Your task to perform on an android device: turn off sleep mode Image 0: 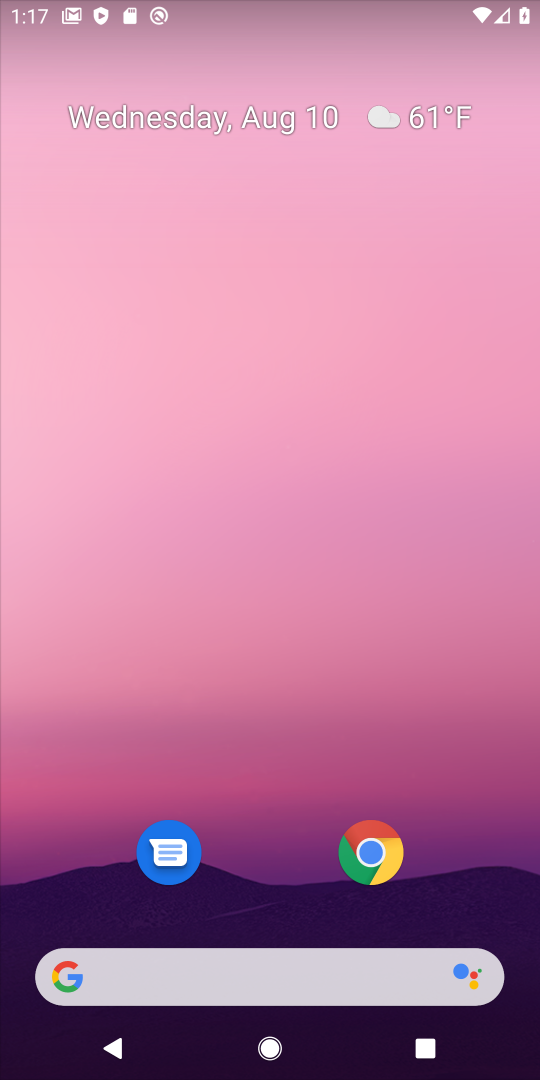
Step 0: drag from (280, 882) to (244, 22)
Your task to perform on an android device: turn off sleep mode Image 1: 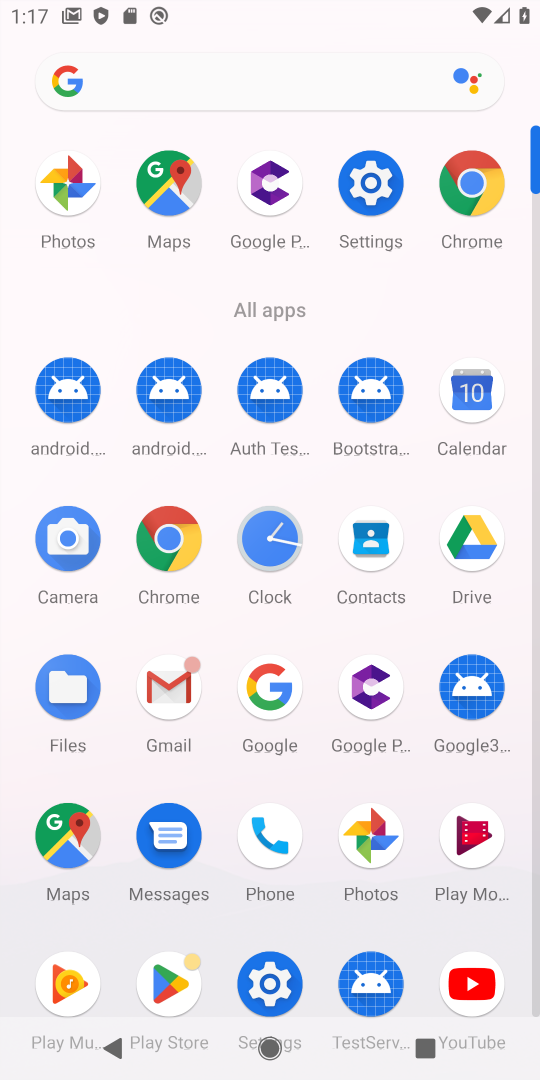
Step 1: click (283, 987)
Your task to perform on an android device: turn off sleep mode Image 2: 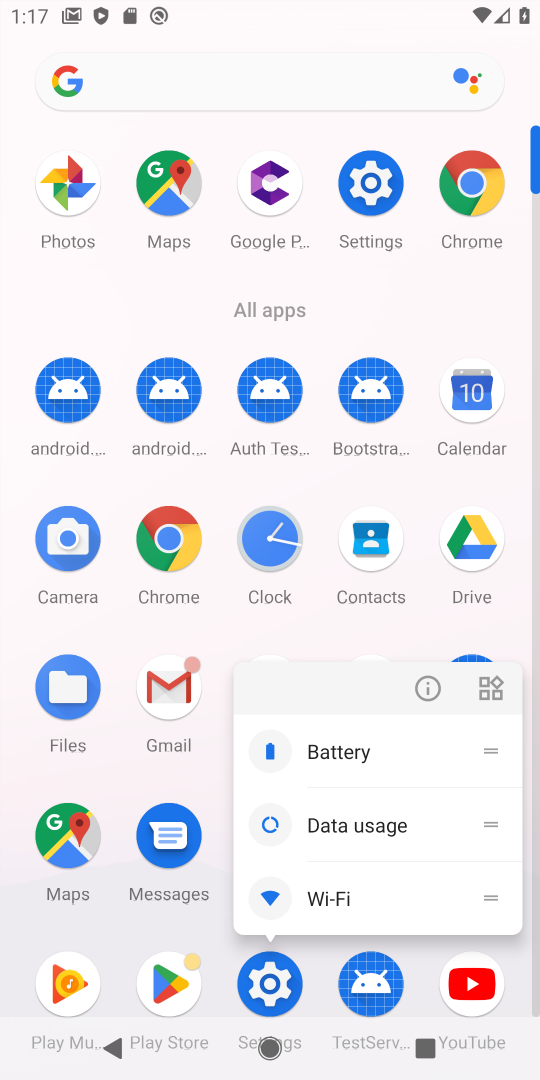
Step 2: click (272, 983)
Your task to perform on an android device: turn off sleep mode Image 3: 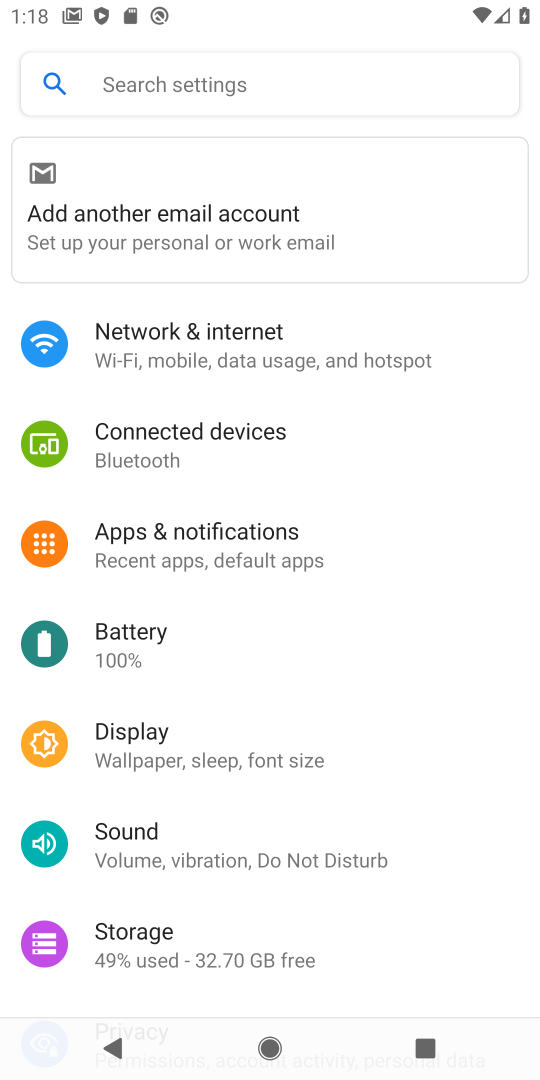
Step 3: click (179, 753)
Your task to perform on an android device: turn off sleep mode Image 4: 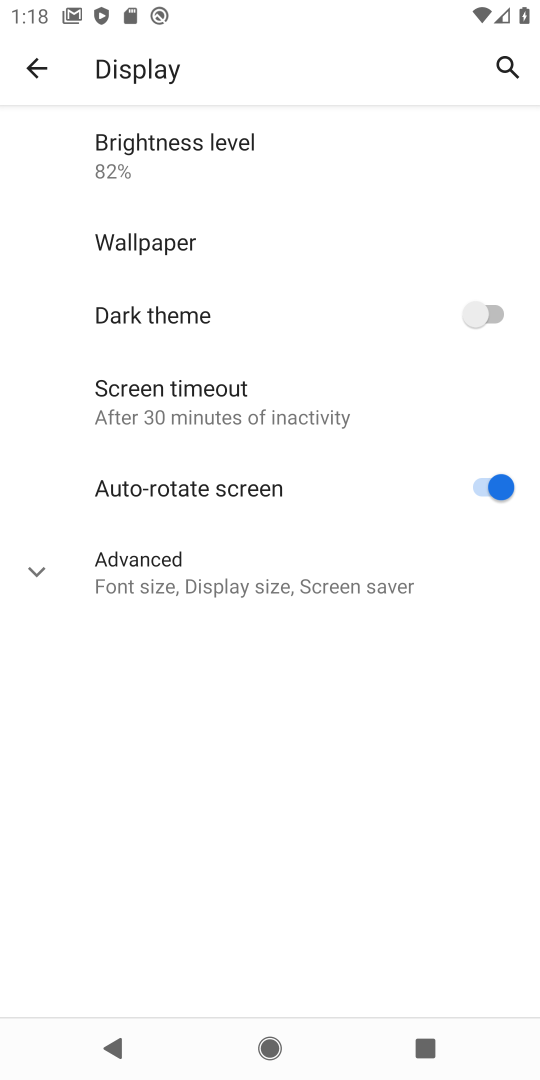
Step 4: click (204, 394)
Your task to perform on an android device: turn off sleep mode Image 5: 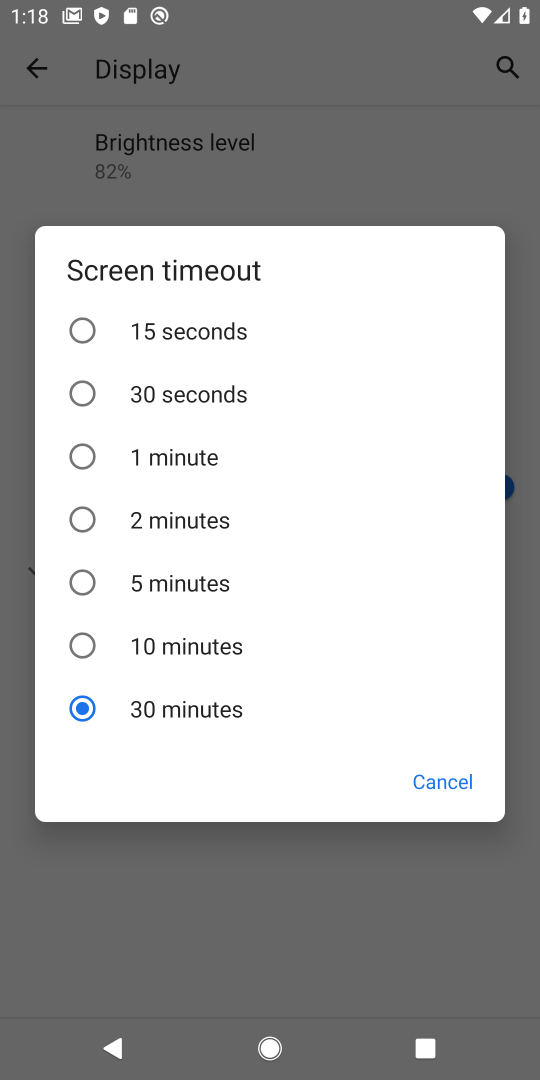
Step 5: task complete